Your task to perform on an android device: Open Google Chrome Image 0: 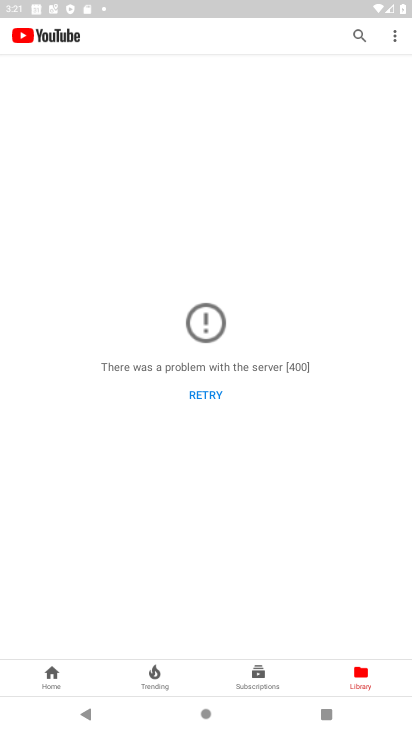
Step 0: press home button
Your task to perform on an android device: Open Google Chrome Image 1: 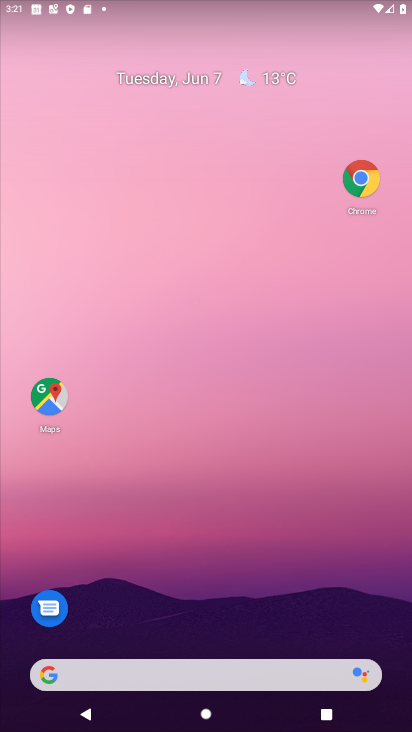
Step 1: drag from (125, 645) to (290, 180)
Your task to perform on an android device: Open Google Chrome Image 2: 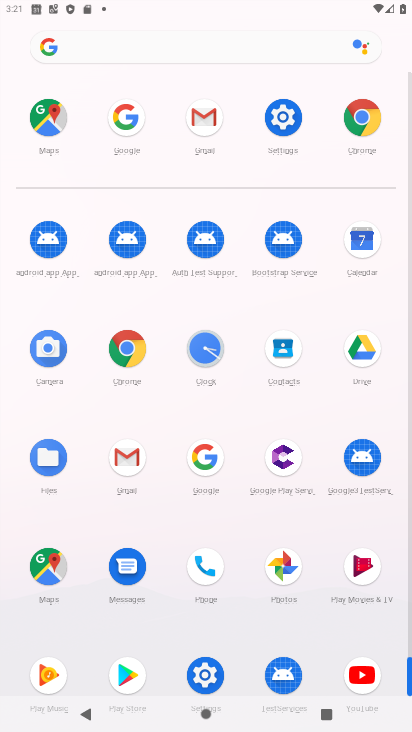
Step 2: click (123, 351)
Your task to perform on an android device: Open Google Chrome Image 3: 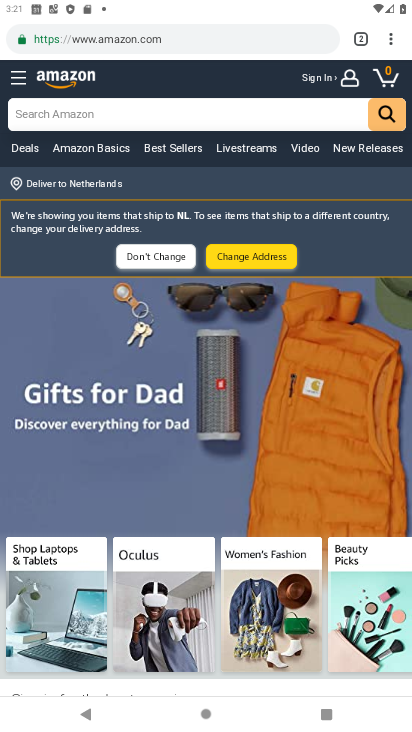
Step 3: task complete